Your task to perform on an android device: turn off sleep mode Image 0: 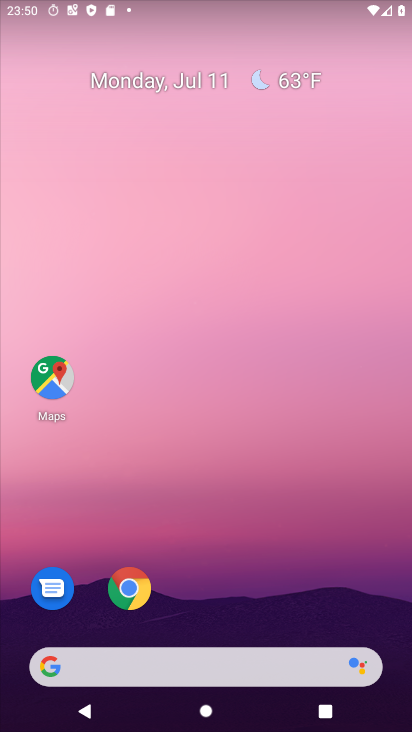
Step 0: click (243, 721)
Your task to perform on an android device: turn off sleep mode Image 1: 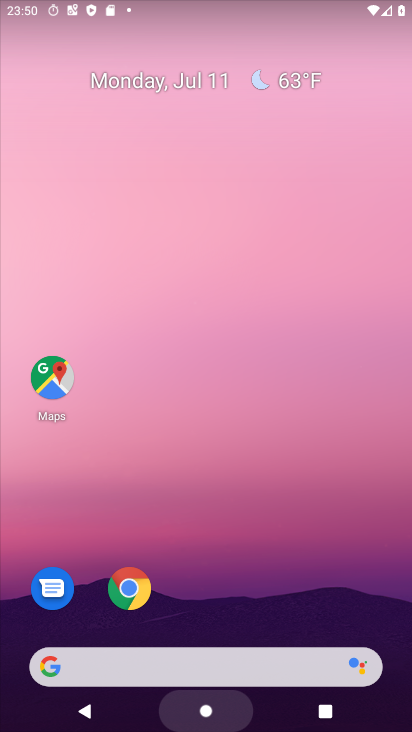
Step 1: drag from (239, 202) to (239, 134)
Your task to perform on an android device: turn off sleep mode Image 2: 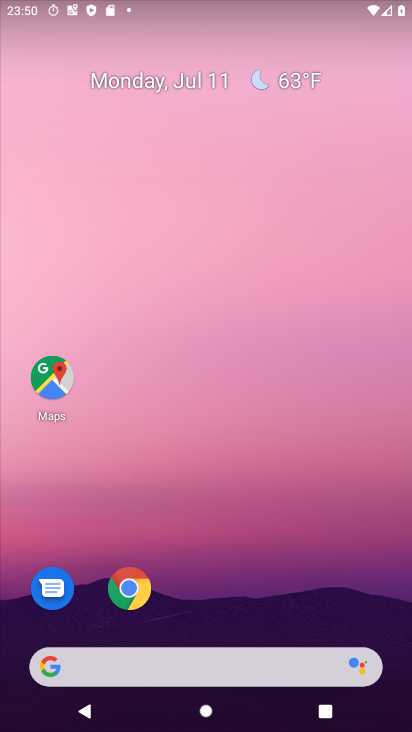
Step 2: drag from (229, 721) to (227, 675)
Your task to perform on an android device: turn off sleep mode Image 3: 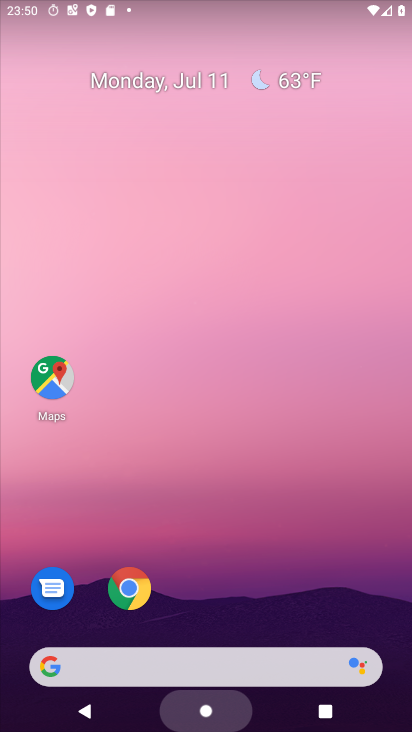
Step 3: drag from (198, 156) to (185, 3)
Your task to perform on an android device: turn off sleep mode Image 4: 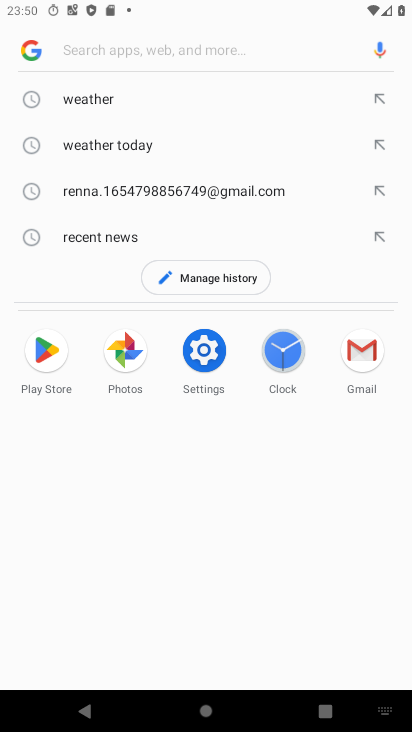
Step 4: press home button
Your task to perform on an android device: turn off sleep mode Image 5: 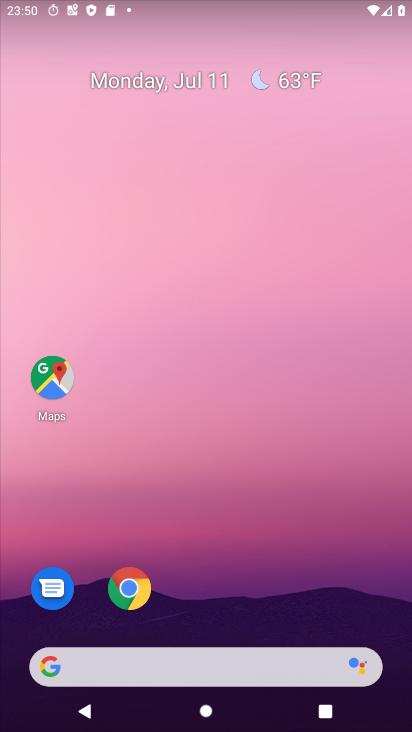
Step 5: drag from (249, 730) to (246, 164)
Your task to perform on an android device: turn off sleep mode Image 6: 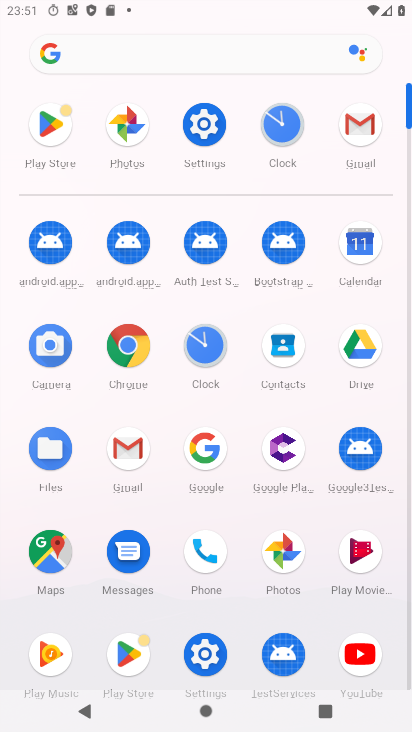
Step 6: click (210, 118)
Your task to perform on an android device: turn off sleep mode Image 7: 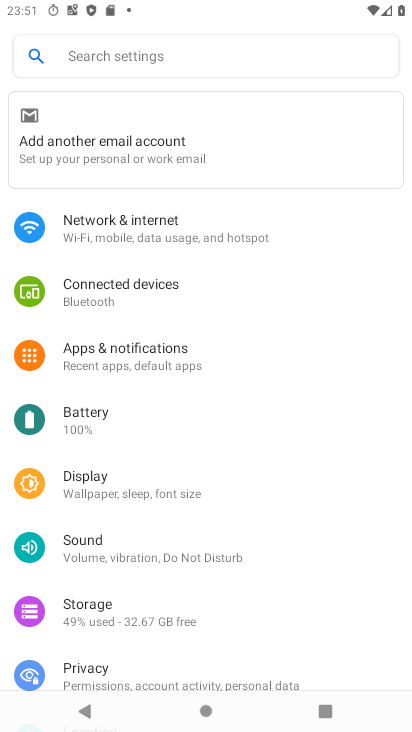
Step 7: click (117, 229)
Your task to perform on an android device: turn off sleep mode Image 8: 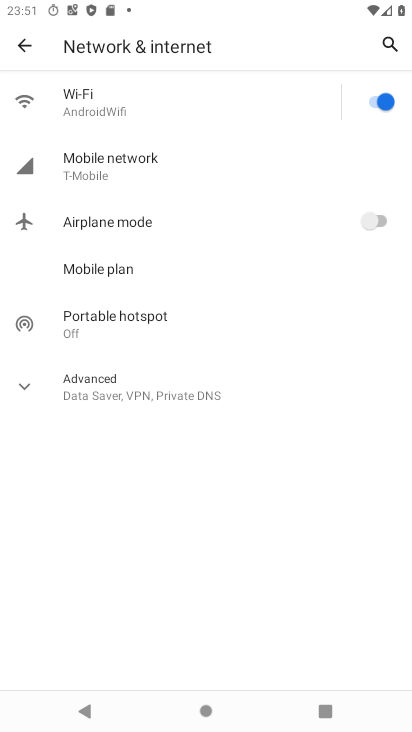
Step 8: click (30, 43)
Your task to perform on an android device: turn off sleep mode Image 9: 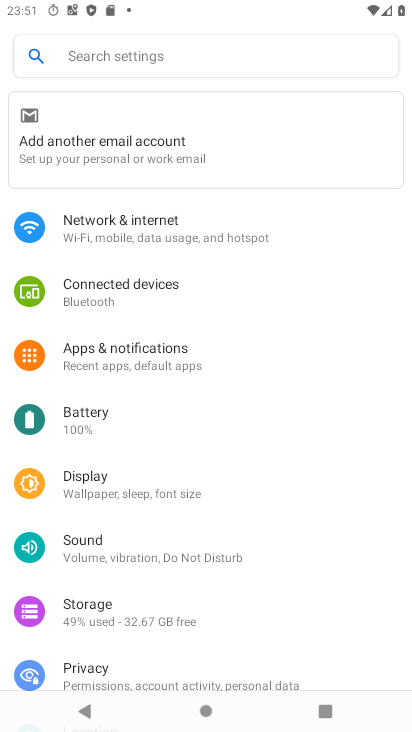
Step 9: click (152, 491)
Your task to perform on an android device: turn off sleep mode Image 10: 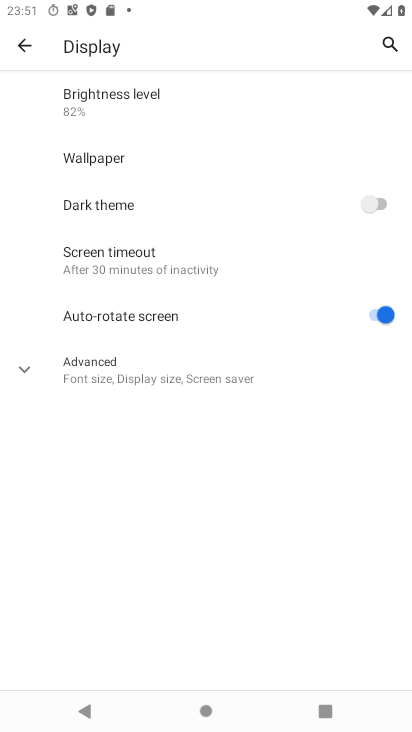
Step 10: task complete